Your task to perform on an android device: Go to wifi settings Image 0: 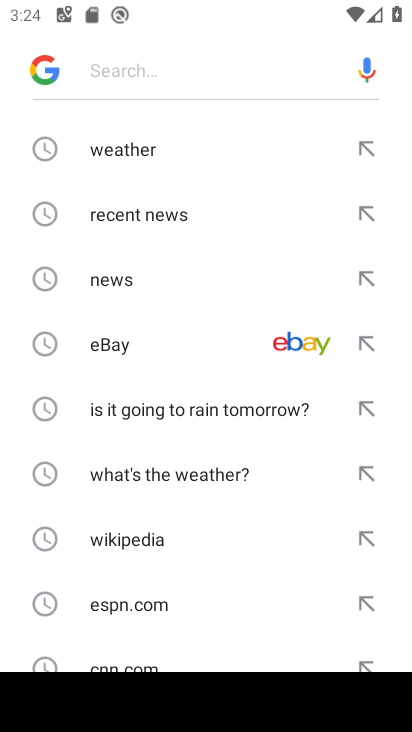
Step 0: press home button
Your task to perform on an android device: Go to wifi settings Image 1: 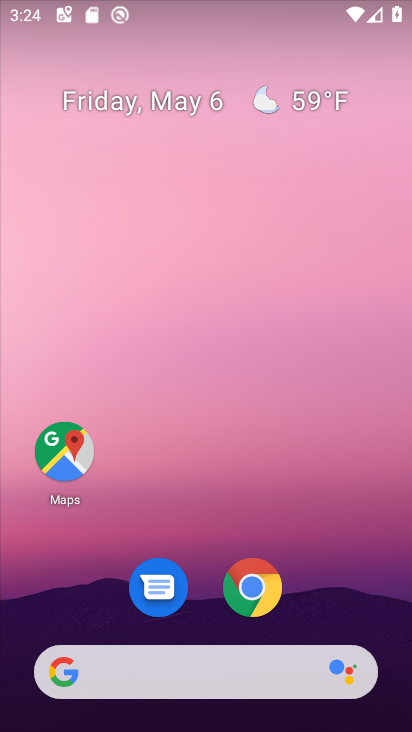
Step 1: drag from (210, 501) to (213, 42)
Your task to perform on an android device: Go to wifi settings Image 2: 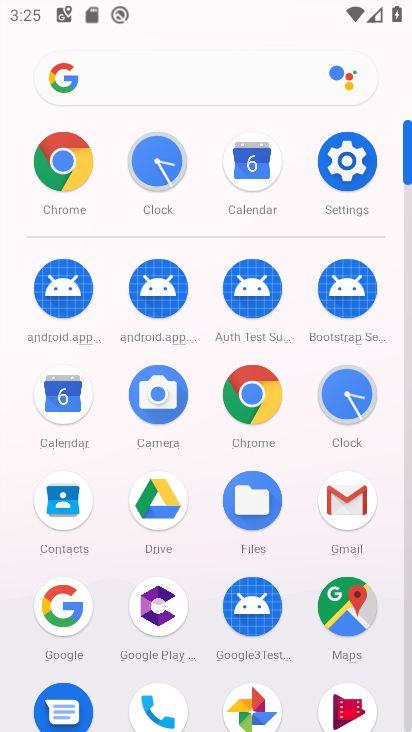
Step 2: click (347, 151)
Your task to perform on an android device: Go to wifi settings Image 3: 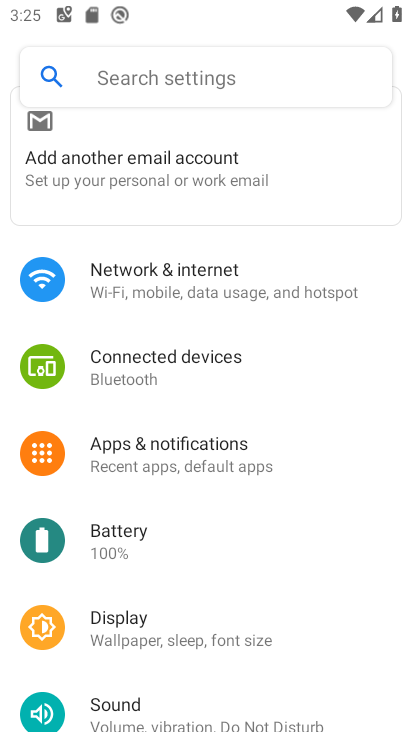
Step 3: click (213, 276)
Your task to perform on an android device: Go to wifi settings Image 4: 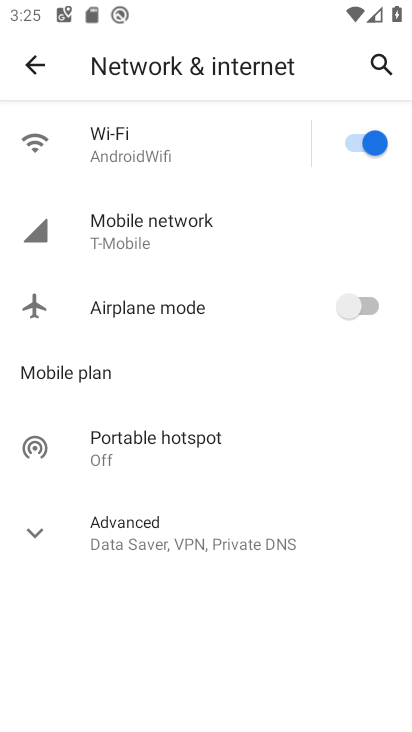
Step 4: click (174, 139)
Your task to perform on an android device: Go to wifi settings Image 5: 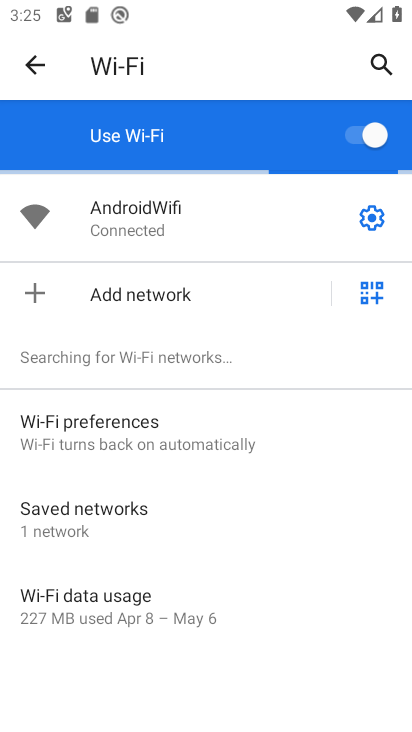
Step 5: task complete